Your task to perform on an android device: Open settings Image 0: 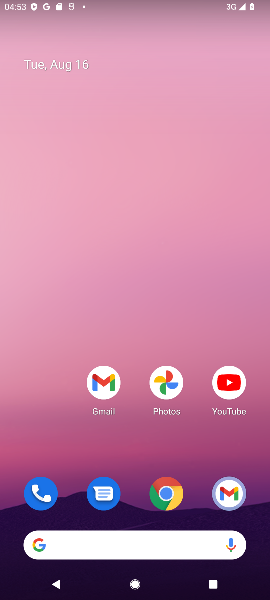
Step 0: press home button
Your task to perform on an android device: Open settings Image 1: 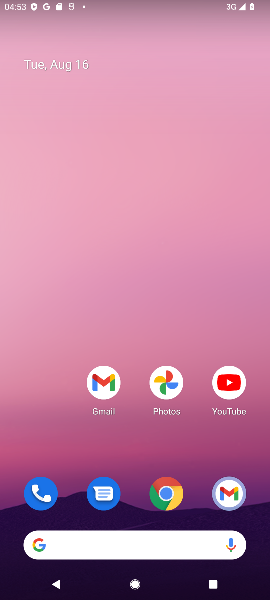
Step 1: drag from (63, 464) to (72, 141)
Your task to perform on an android device: Open settings Image 2: 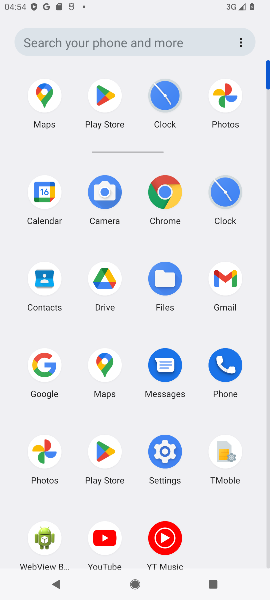
Step 2: click (165, 455)
Your task to perform on an android device: Open settings Image 3: 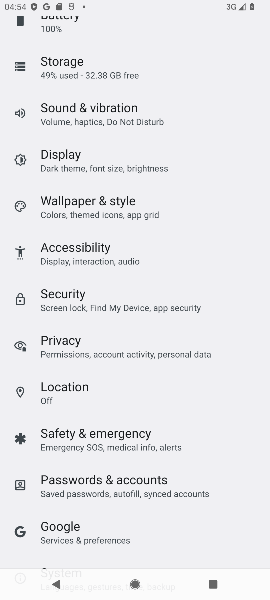
Step 3: task complete